Your task to perform on an android device: Show me recent news Image 0: 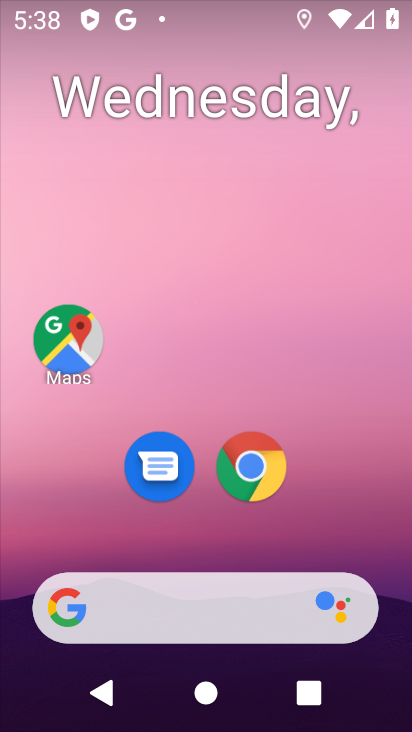
Step 0: click (250, 481)
Your task to perform on an android device: Show me recent news Image 1: 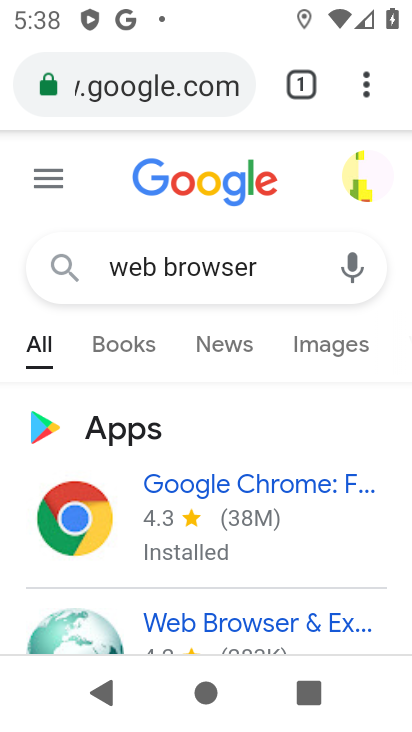
Step 1: click (214, 79)
Your task to perform on an android device: Show me recent news Image 2: 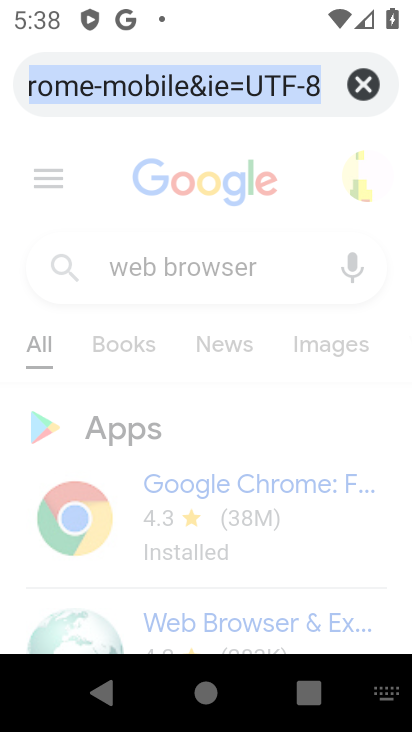
Step 2: click (356, 82)
Your task to perform on an android device: Show me recent news Image 3: 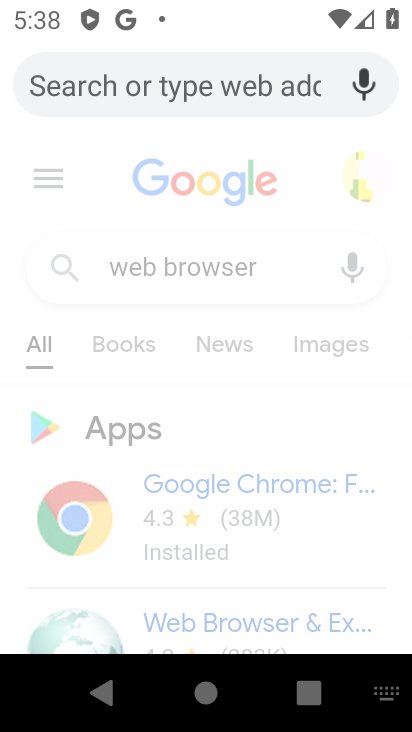
Step 3: type "Show me recent news"
Your task to perform on an android device: Show me recent news Image 4: 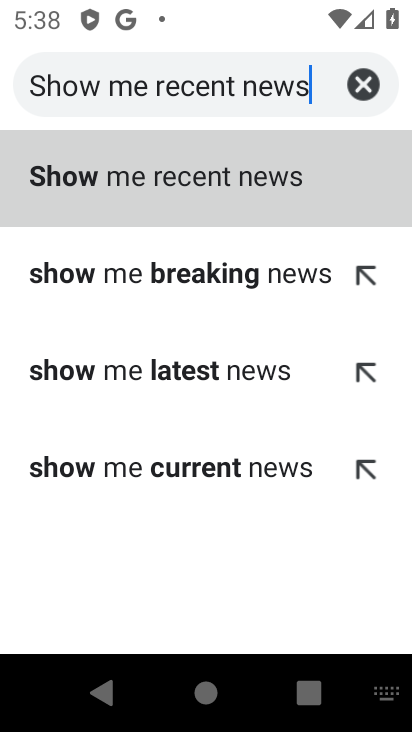
Step 4: click (198, 173)
Your task to perform on an android device: Show me recent news Image 5: 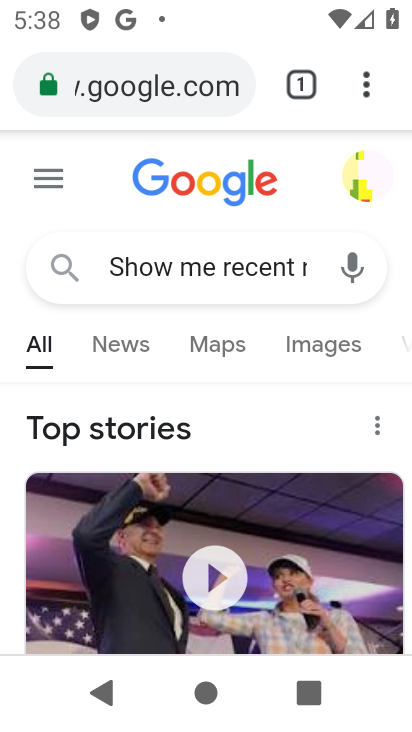
Step 5: click (110, 348)
Your task to perform on an android device: Show me recent news Image 6: 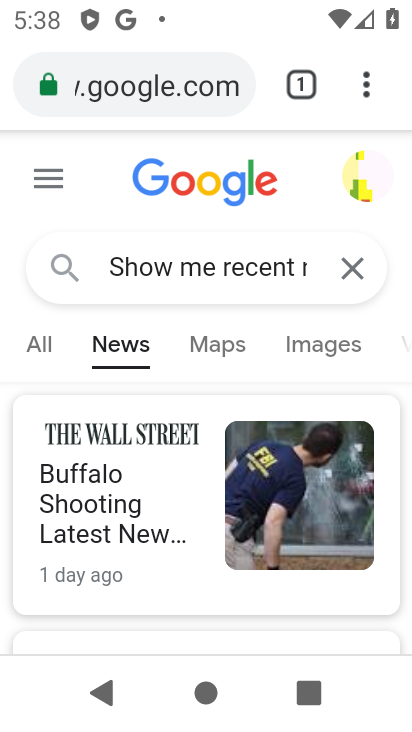
Step 6: task complete